Your task to perform on an android device: Go to Android settings Image 0: 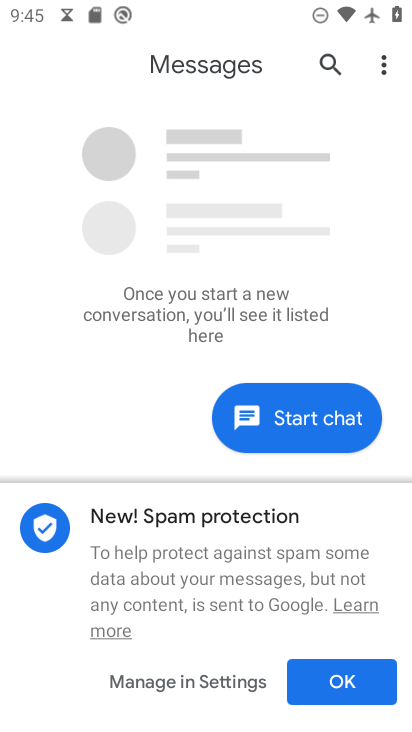
Step 0: press home button
Your task to perform on an android device: Go to Android settings Image 1: 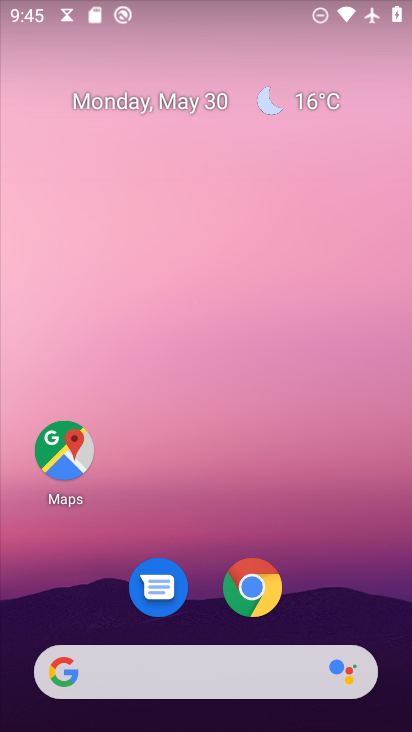
Step 1: drag from (199, 674) to (249, 126)
Your task to perform on an android device: Go to Android settings Image 2: 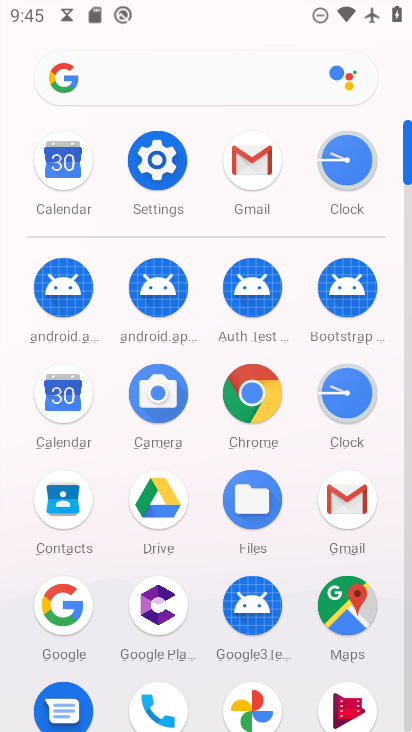
Step 2: click (160, 159)
Your task to perform on an android device: Go to Android settings Image 3: 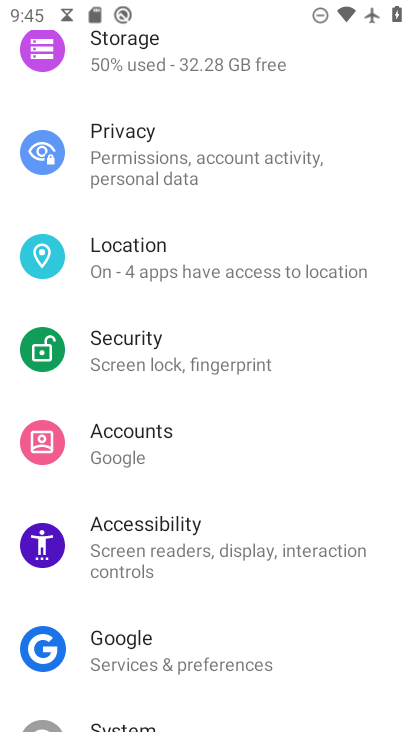
Step 3: task complete